Your task to perform on an android device: turn off location history Image 0: 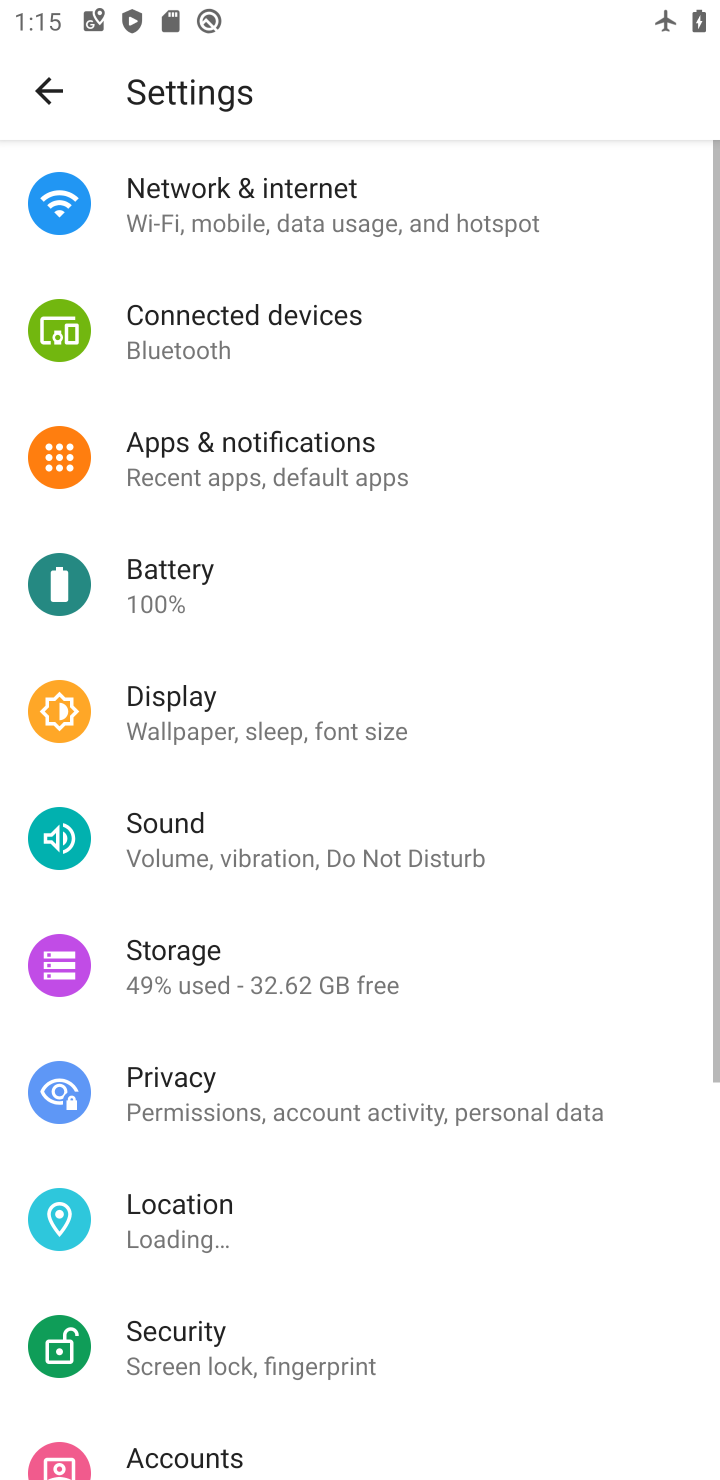
Step 0: press home button
Your task to perform on an android device: turn off location history Image 1: 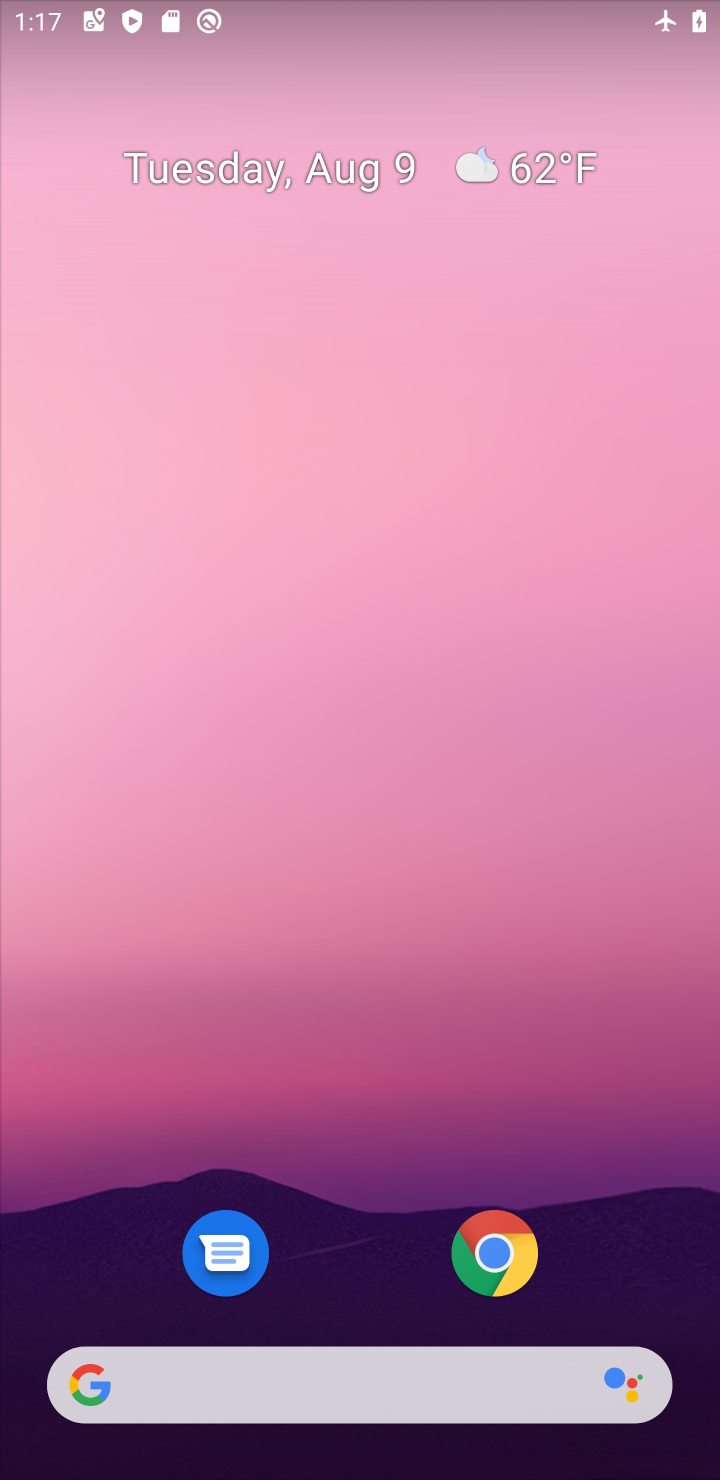
Step 1: drag from (690, 1272) to (282, 0)
Your task to perform on an android device: turn off location history Image 2: 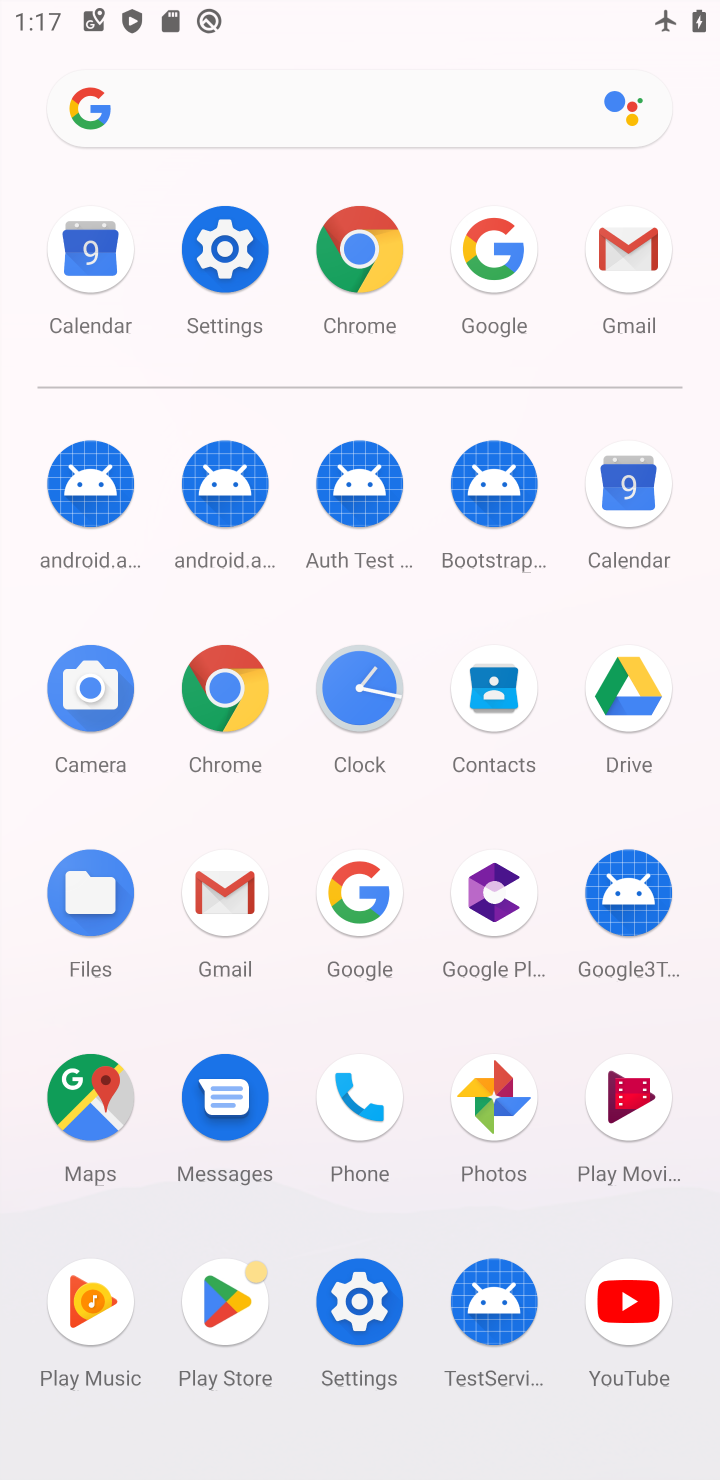
Step 2: click (380, 1326)
Your task to perform on an android device: turn off location history Image 3: 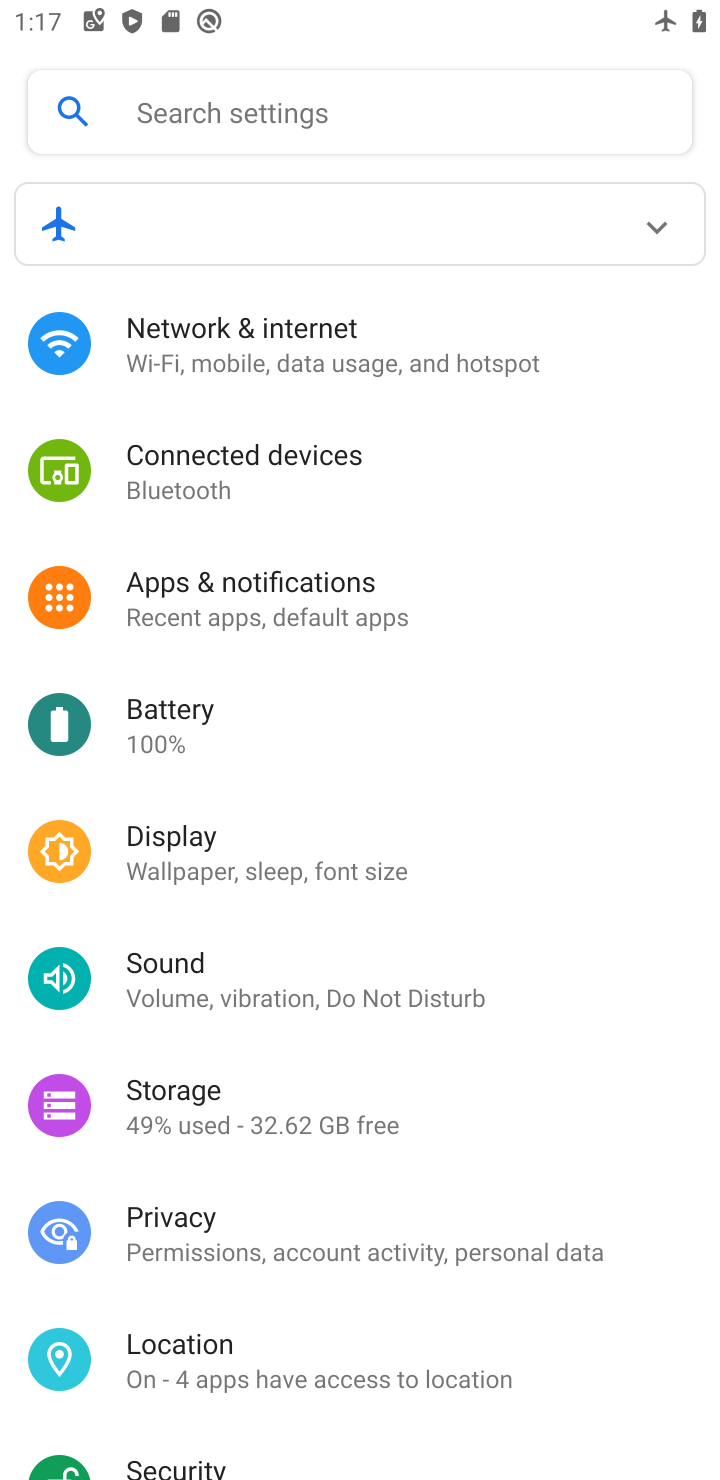
Step 3: click (258, 1362)
Your task to perform on an android device: turn off location history Image 4: 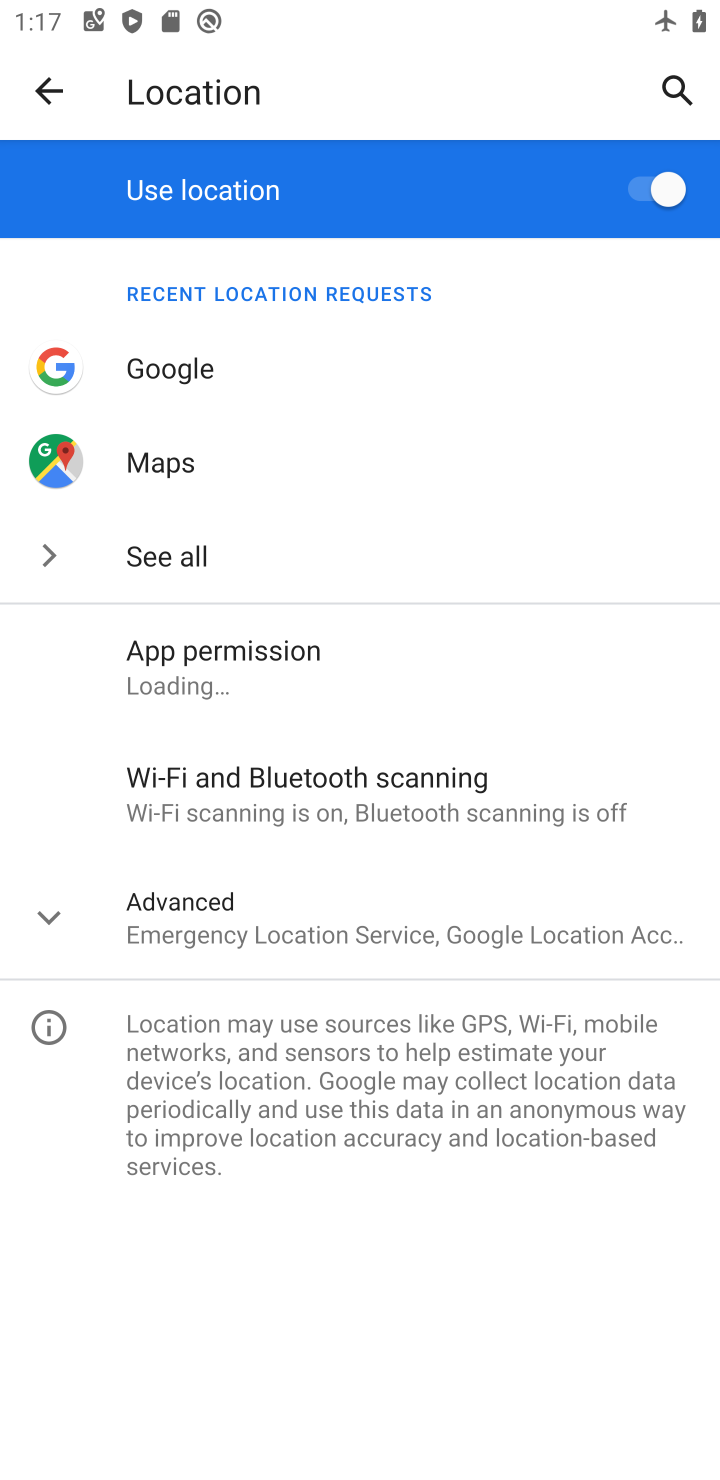
Step 4: click (240, 896)
Your task to perform on an android device: turn off location history Image 5: 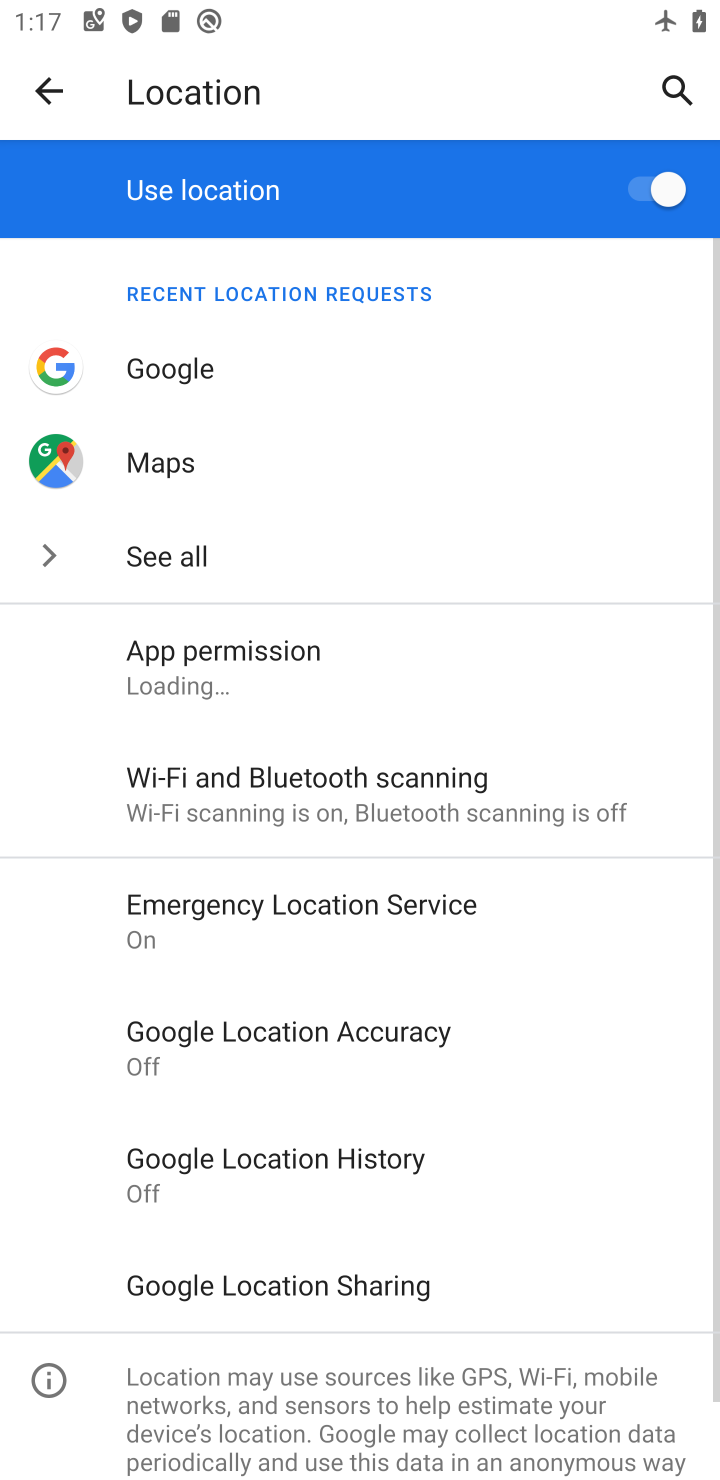
Step 5: click (281, 1170)
Your task to perform on an android device: turn off location history Image 6: 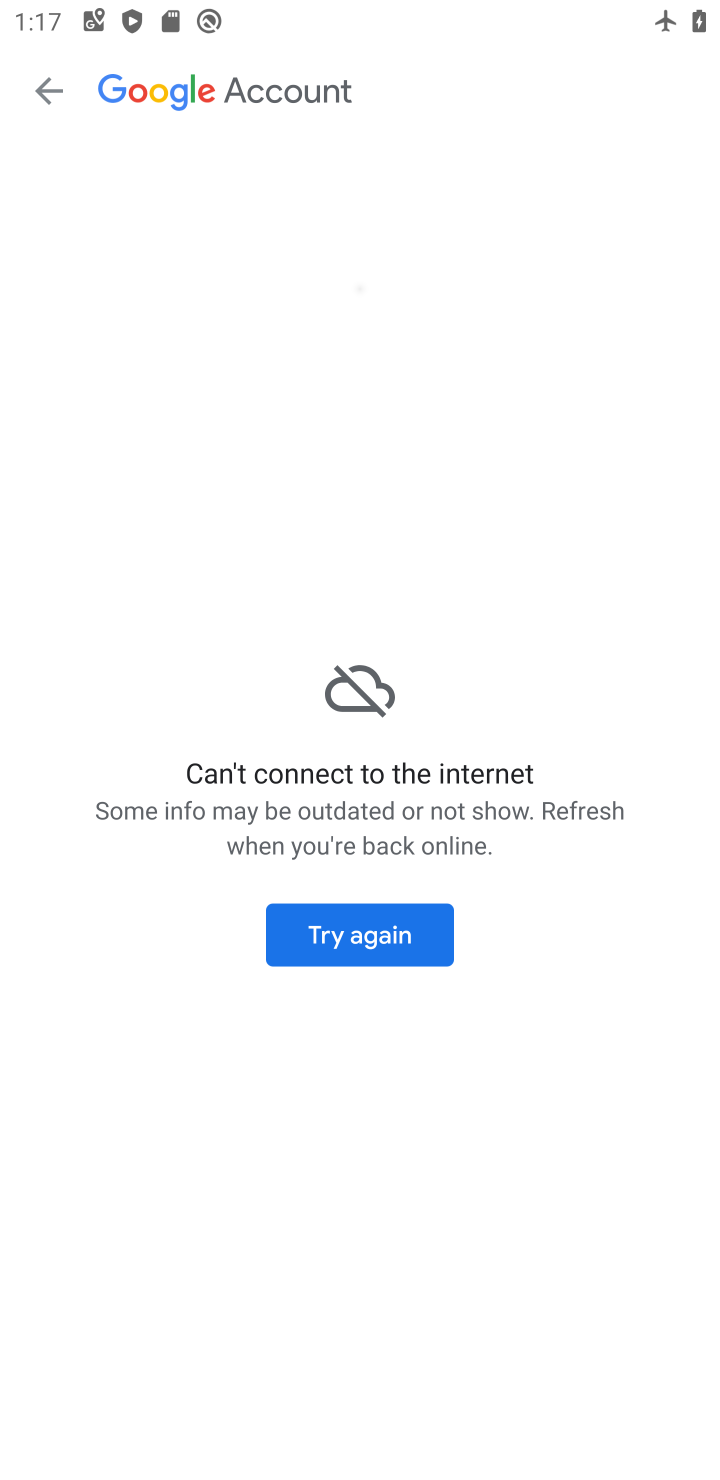
Step 6: task complete